Your task to perform on an android device: open app "McDonald's" (install if not already installed) Image 0: 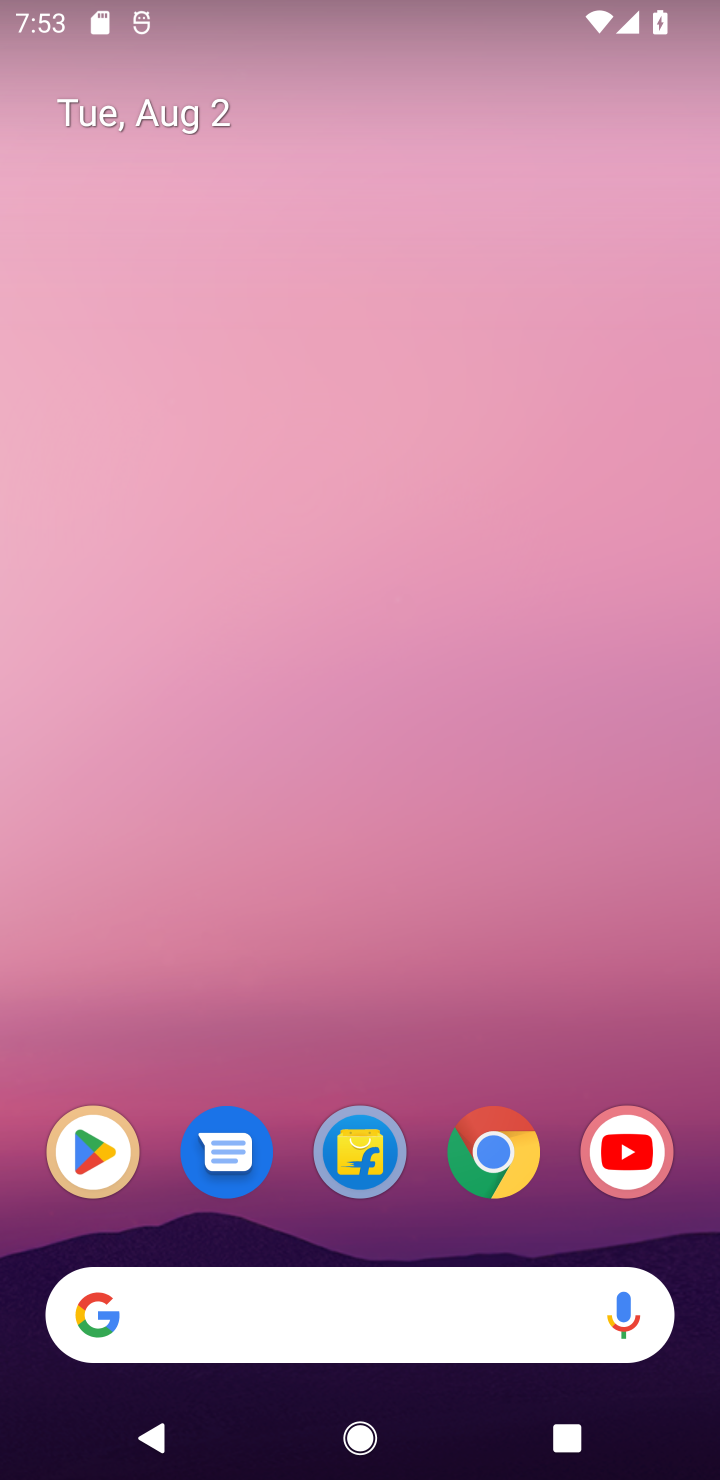
Step 0: click (103, 1164)
Your task to perform on an android device: open app "McDonald's" (install if not already installed) Image 1: 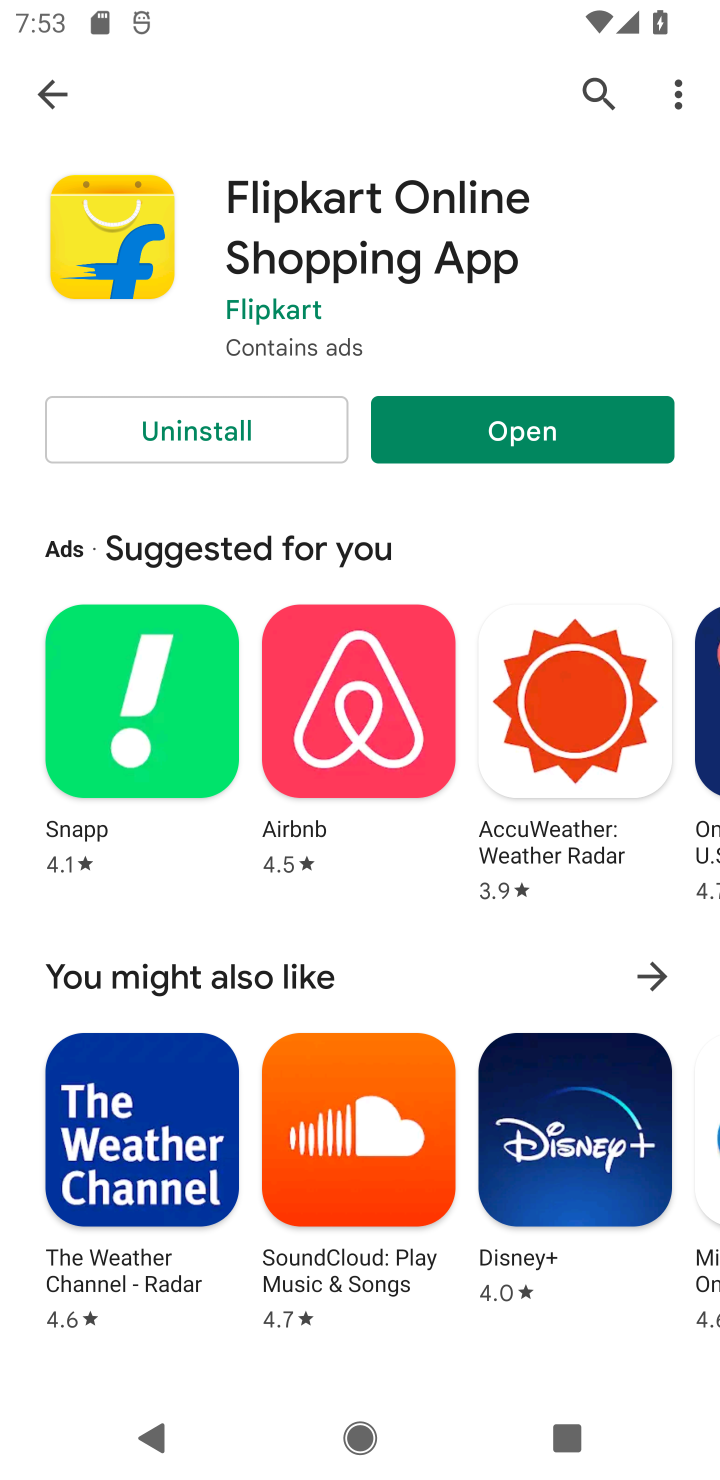
Step 1: click (50, 90)
Your task to perform on an android device: open app "McDonald's" (install if not already installed) Image 2: 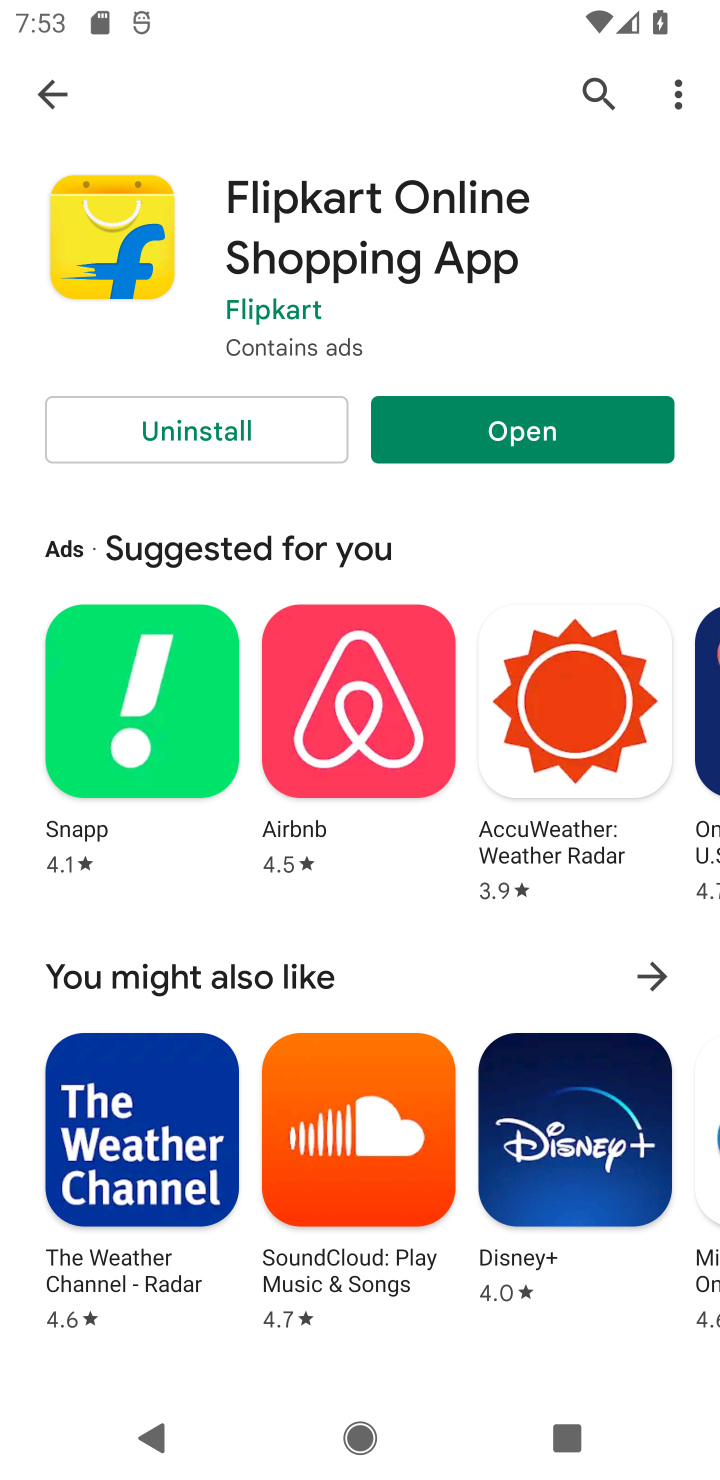
Step 2: click (49, 102)
Your task to perform on an android device: open app "McDonald's" (install if not already installed) Image 3: 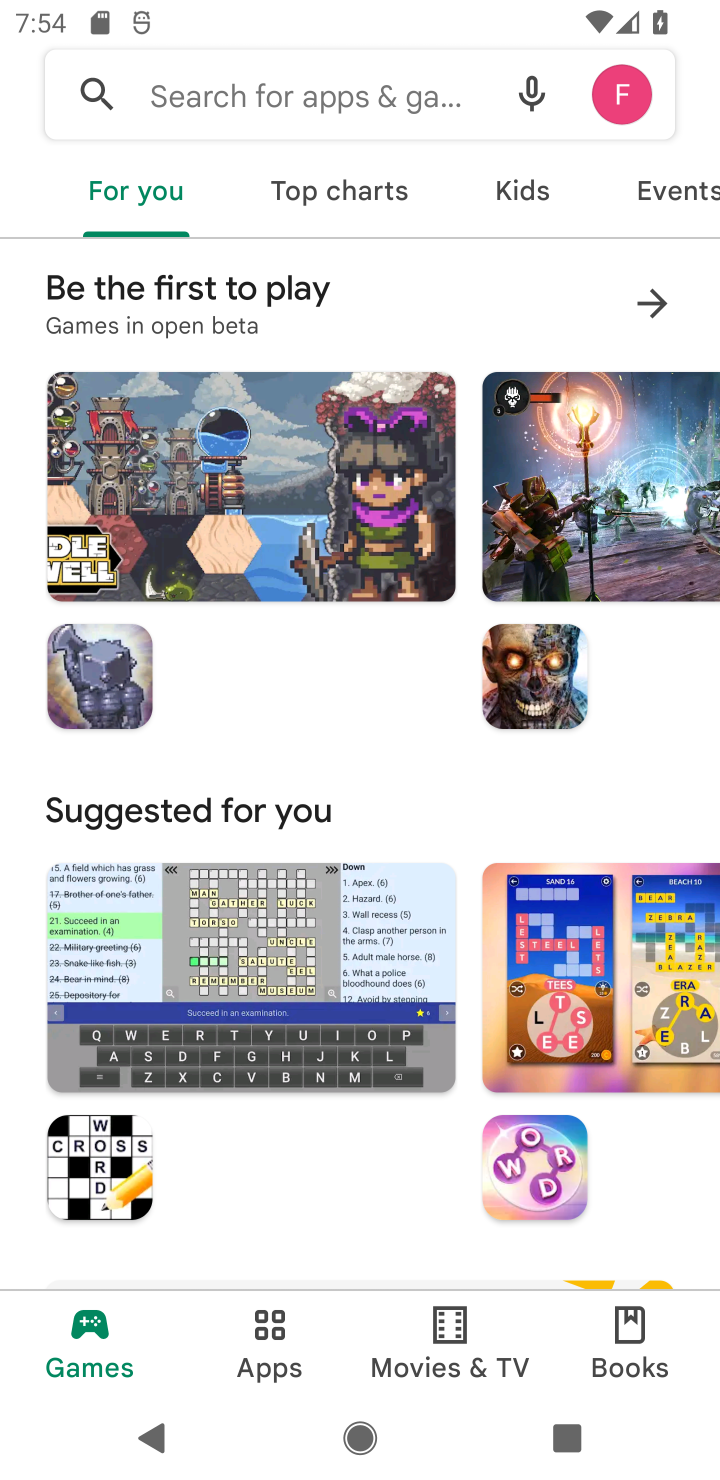
Step 3: click (294, 117)
Your task to perform on an android device: open app "McDonald's" (install if not already installed) Image 4: 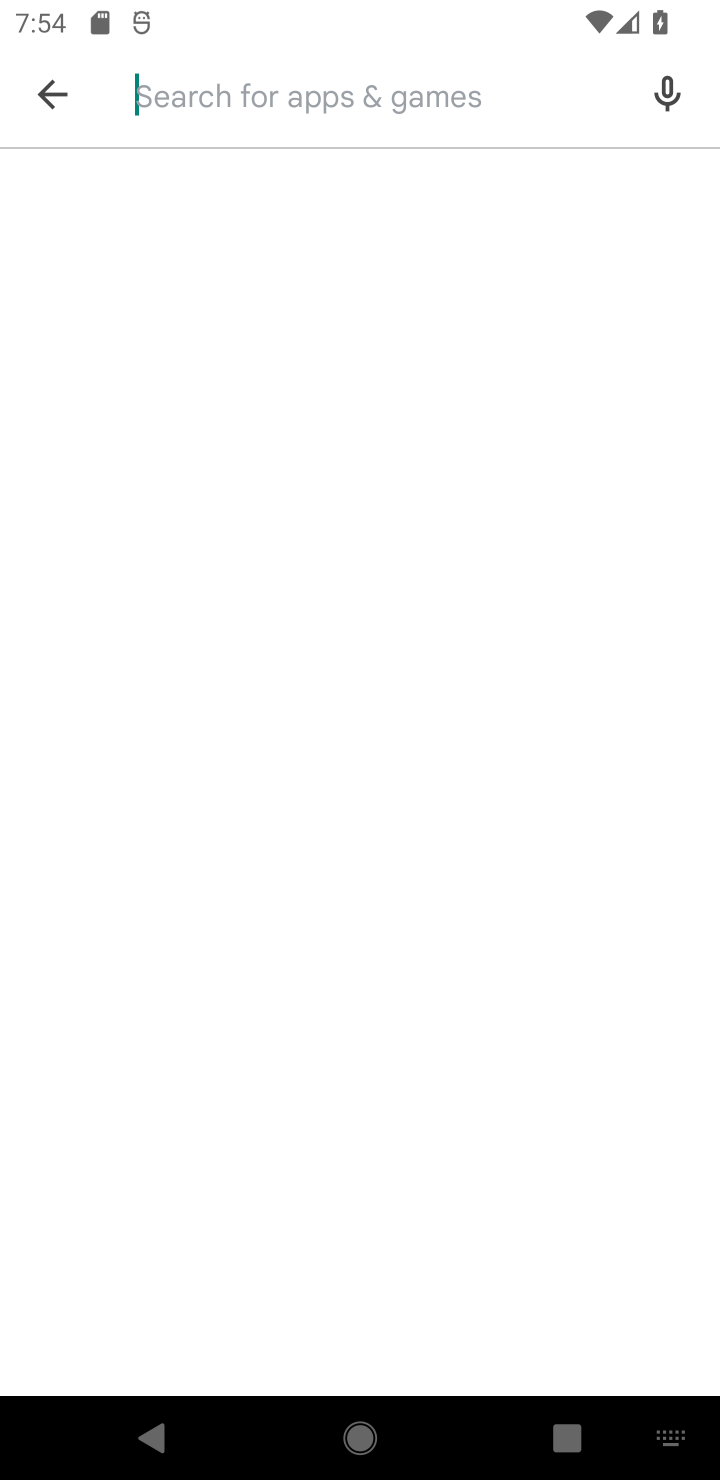
Step 4: type "McDonald's"
Your task to perform on an android device: open app "McDonald's" (install if not already installed) Image 5: 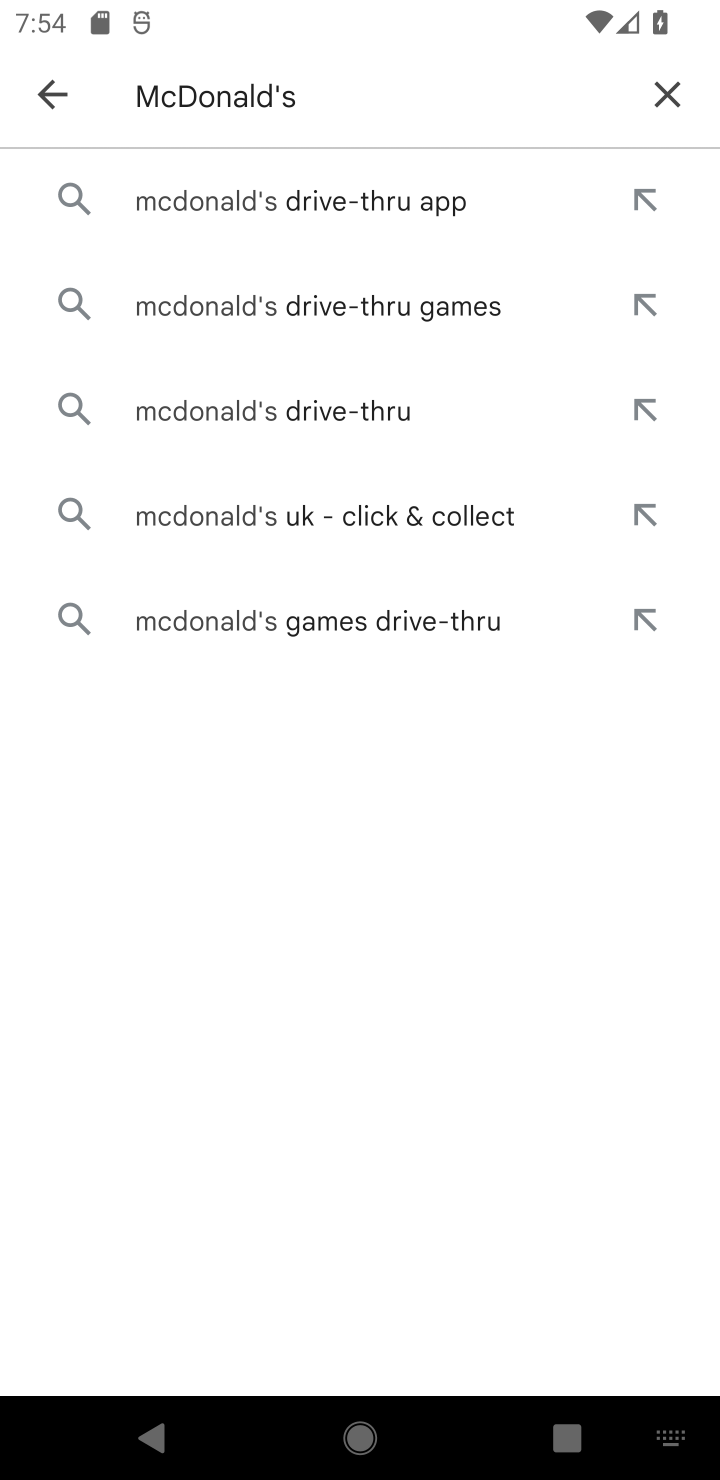
Step 5: click (414, 201)
Your task to perform on an android device: open app "McDonald's" (install if not already installed) Image 6: 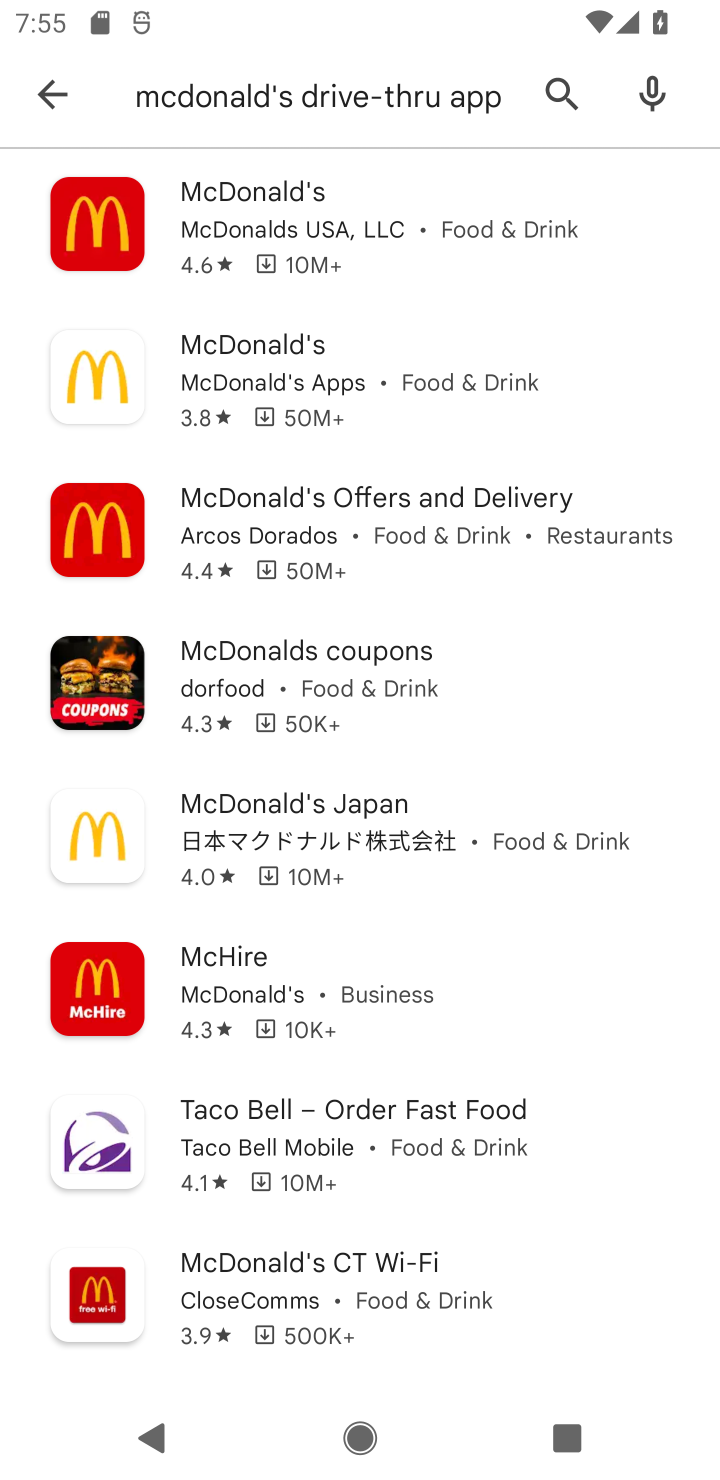
Step 6: click (323, 214)
Your task to perform on an android device: open app "McDonald's" (install if not already installed) Image 7: 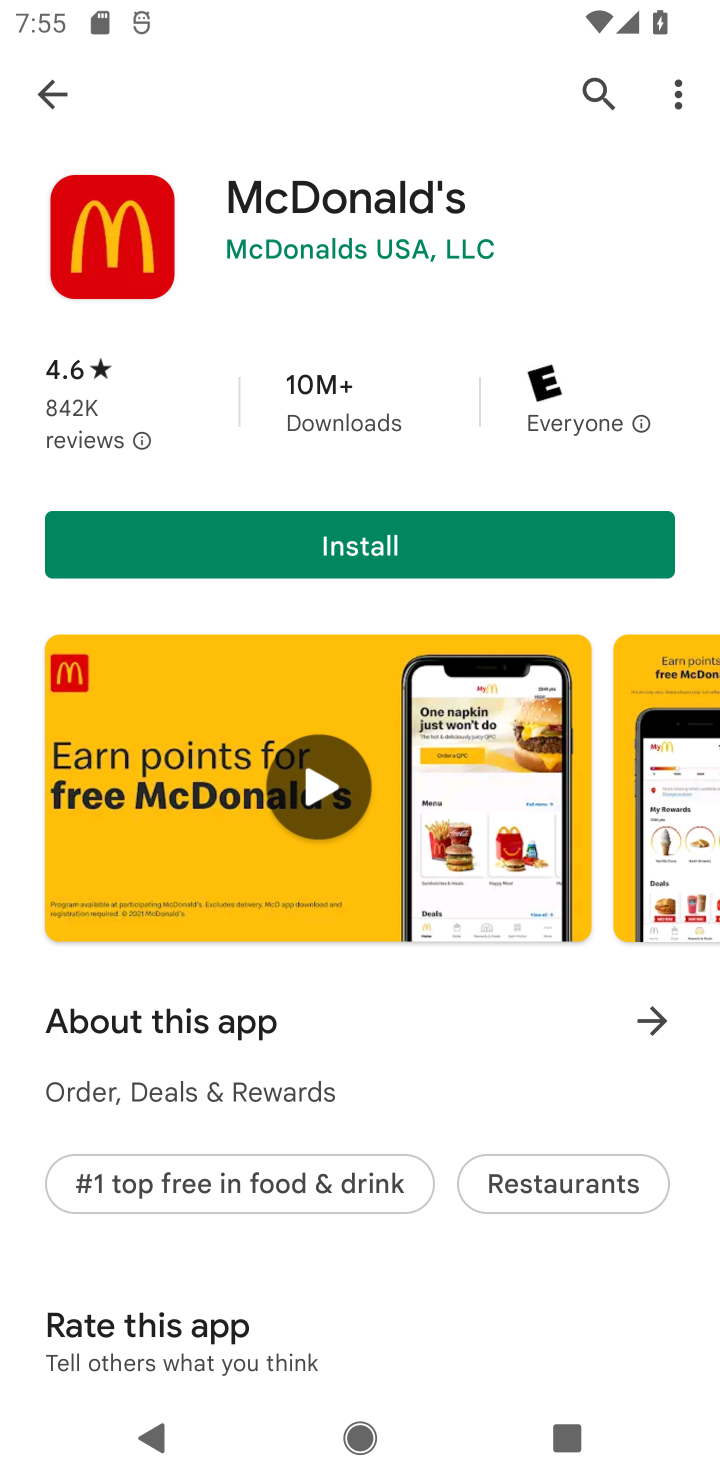
Step 7: click (292, 542)
Your task to perform on an android device: open app "McDonald's" (install if not already installed) Image 8: 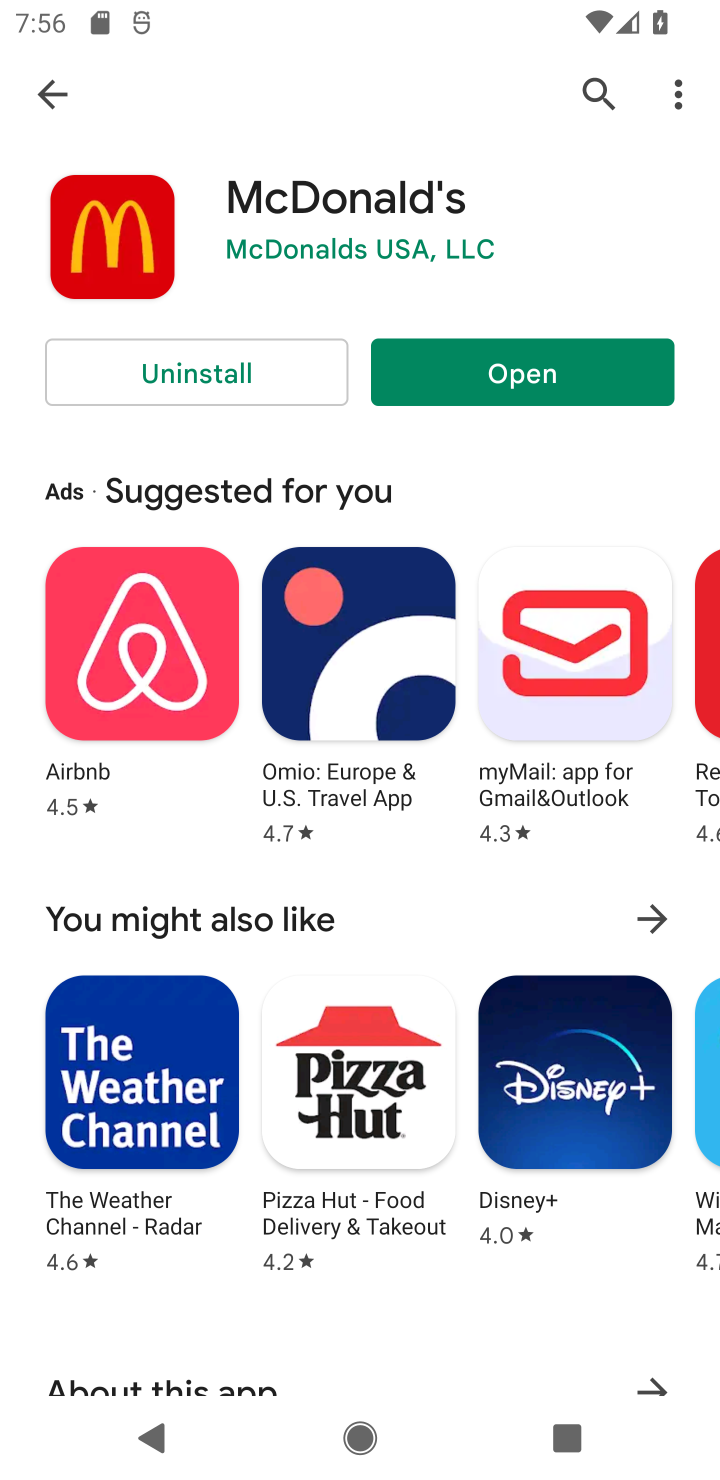
Step 8: click (549, 376)
Your task to perform on an android device: open app "McDonald's" (install if not already installed) Image 9: 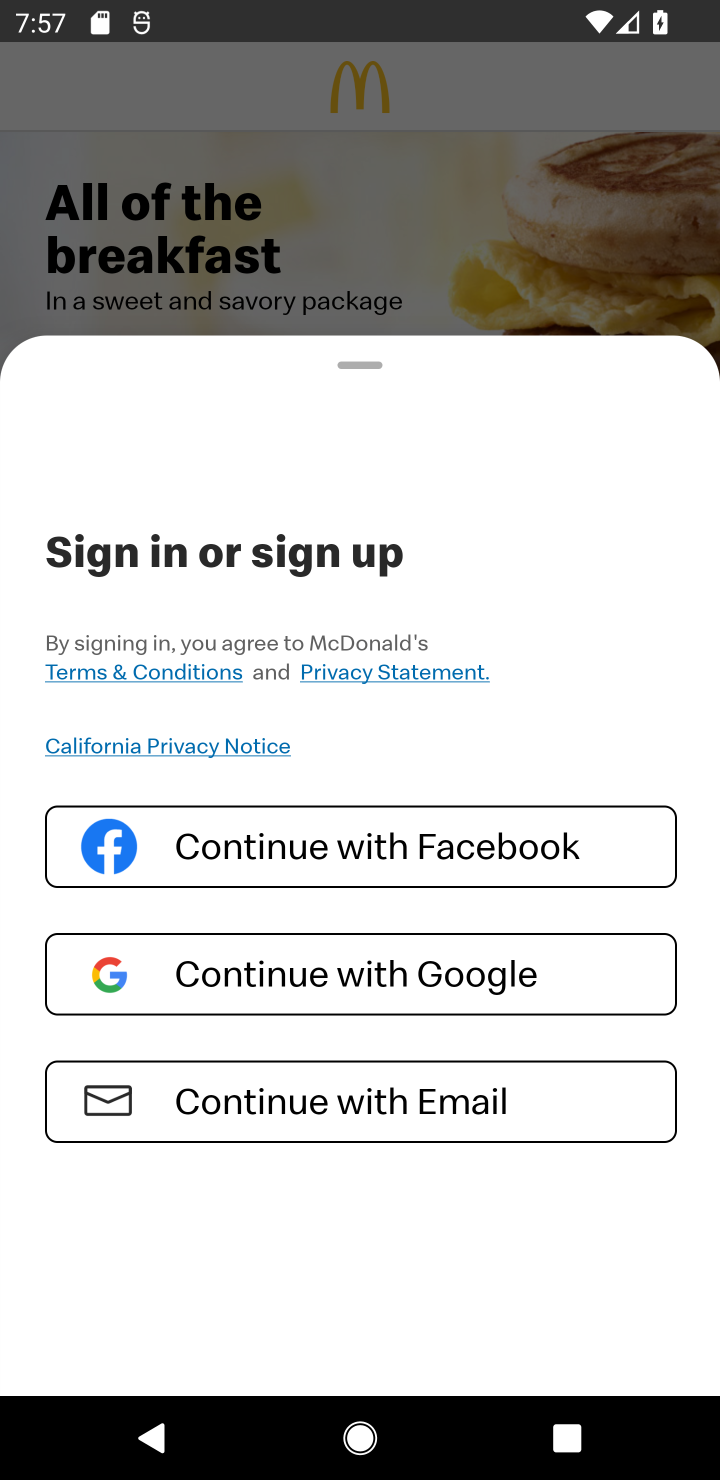
Step 9: task complete